Your task to perform on an android device: turn off sleep mode Image 0: 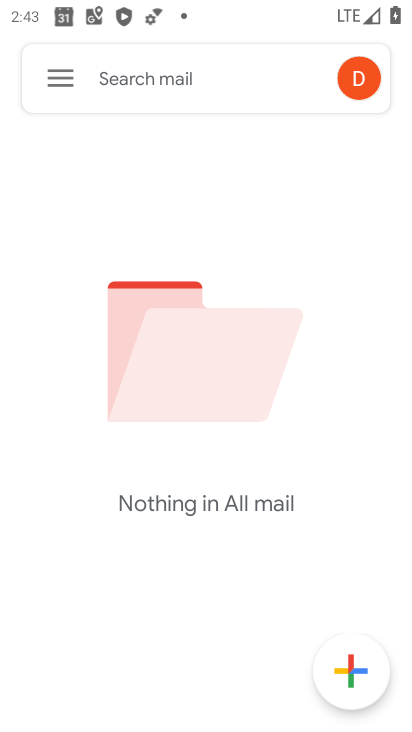
Step 0: press home button
Your task to perform on an android device: turn off sleep mode Image 1: 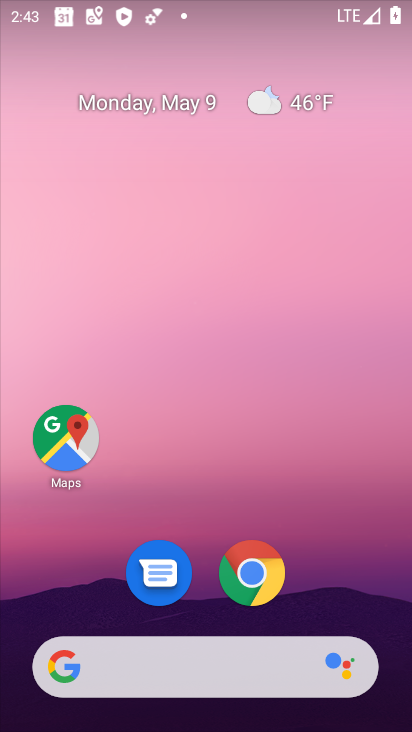
Step 1: drag from (201, 599) to (226, 142)
Your task to perform on an android device: turn off sleep mode Image 2: 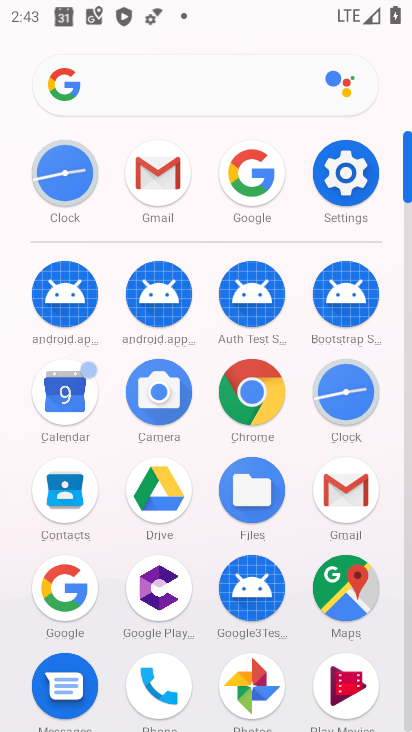
Step 2: click (346, 158)
Your task to perform on an android device: turn off sleep mode Image 3: 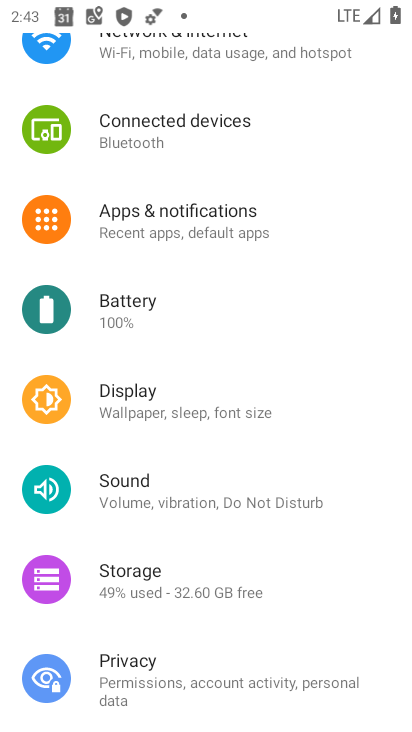
Step 3: click (174, 396)
Your task to perform on an android device: turn off sleep mode Image 4: 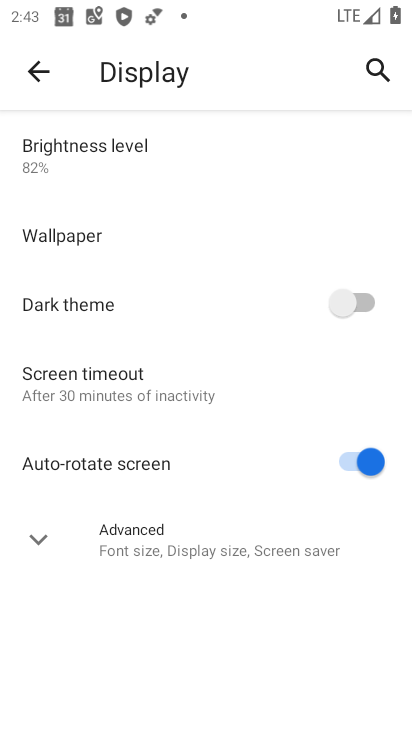
Step 4: click (220, 388)
Your task to perform on an android device: turn off sleep mode Image 5: 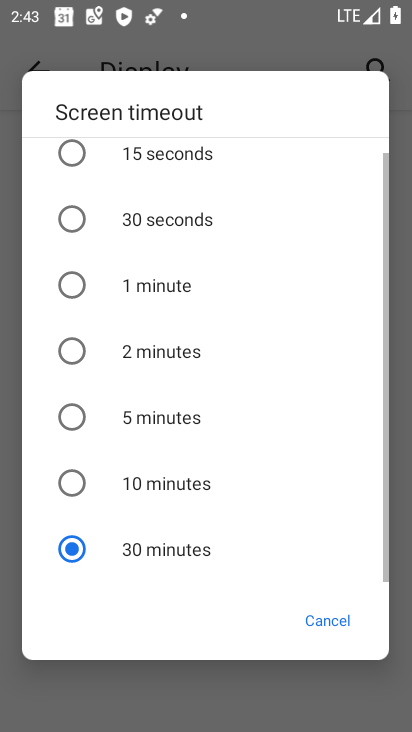
Step 5: task complete